Your task to perform on an android device: What's the weather today? Image 0: 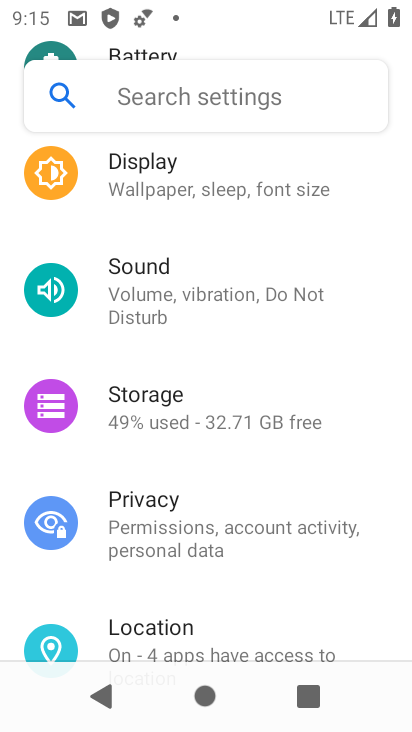
Step 0: press back button
Your task to perform on an android device: What's the weather today? Image 1: 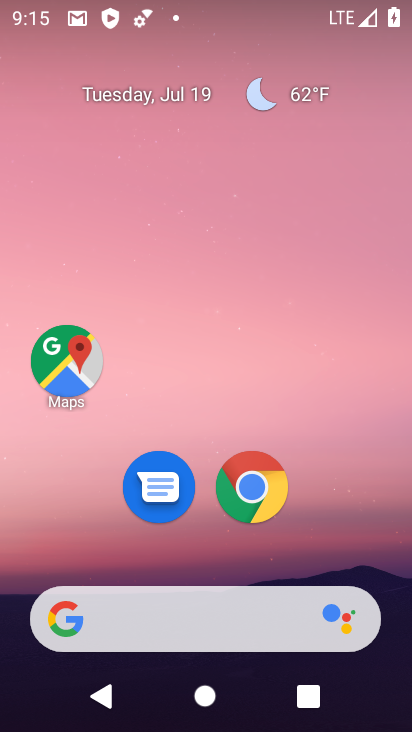
Step 1: click (273, 97)
Your task to perform on an android device: What's the weather today? Image 2: 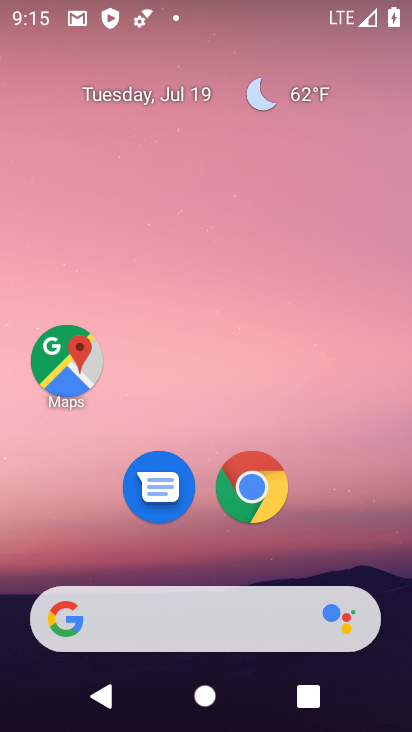
Step 2: click (263, 96)
Your task to perform on an android device: What's the weather today? Image 3: 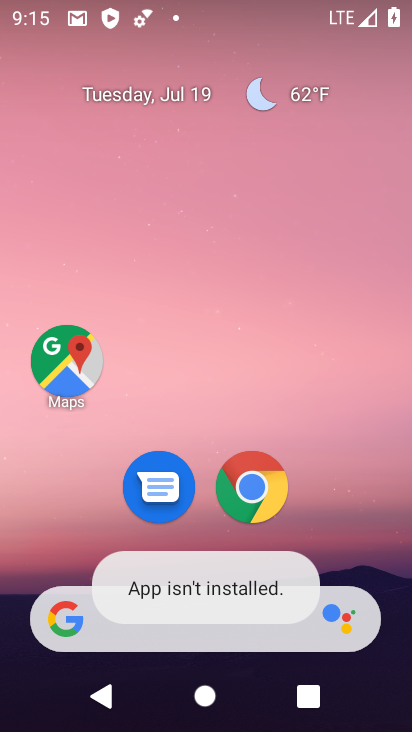
Step 3: click (167, 643)
Your task to perform on an android device: What's the weather today? Image 4: 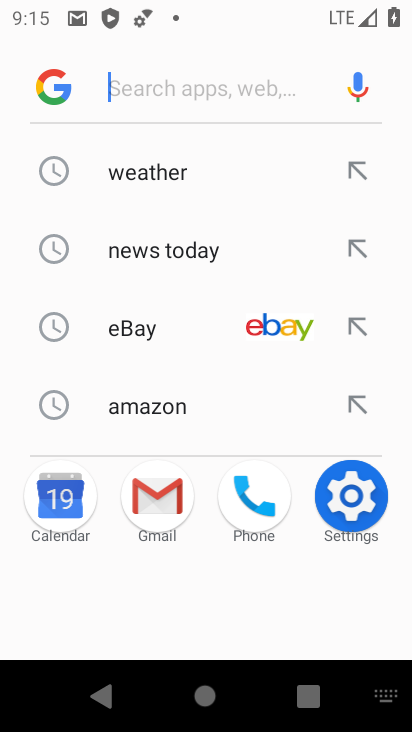
Step 4: click (179, 174)
Your task to perform on an android device: What's the weather today? Image 5: 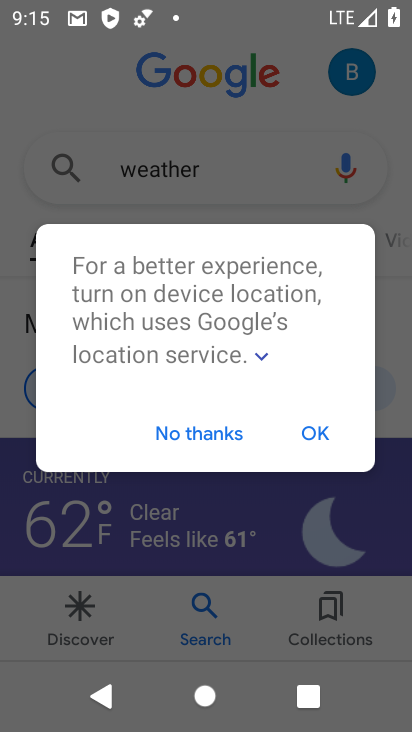
Step 5: click (208, 440)
Your task to perform on an android device: What's the weather today? Image 6: 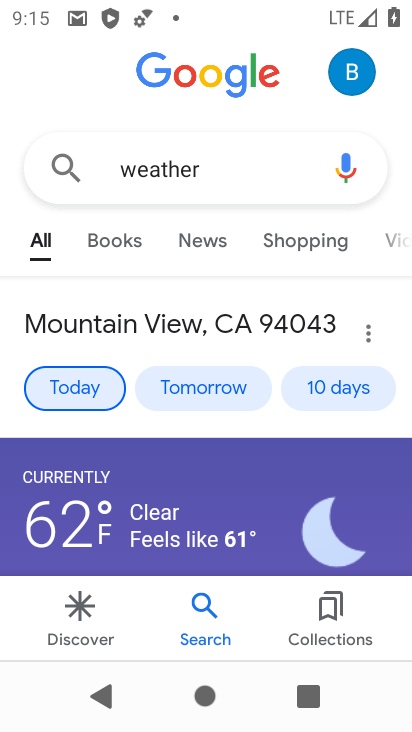
Step 6: task complete